Your task to perform on an android device: check data usage Image 0: 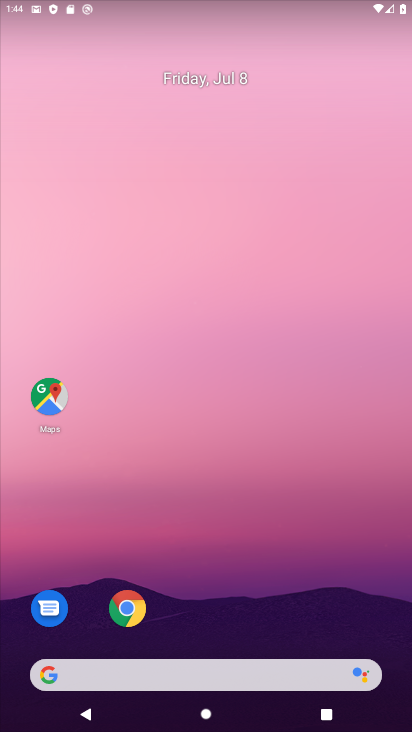
Step 0: drag from (300, 634) to (303, 346)
Your task to perform on an android device: check data usage Image 1: 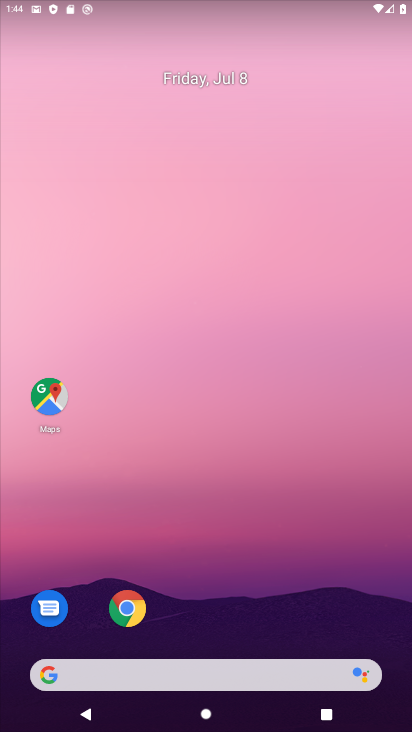
Step 1: drag from (248, 555) to (240, 6)
Your task to perform on an android device: check data usage Image 2: 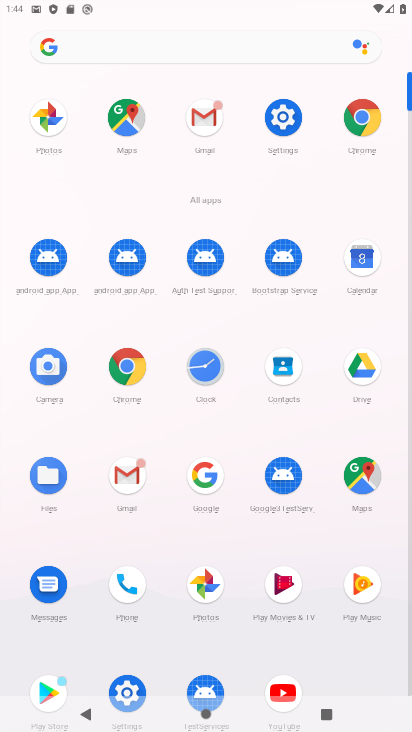
Step 2: click (282, 99)
Your task to perform on an android device: check data usage Image 3: 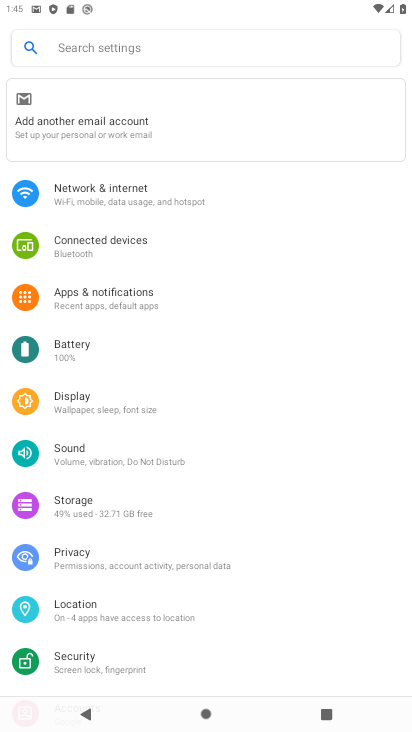
Step 3: click (141, 197)
Your task to perform on an android device: check data usage Image 4: 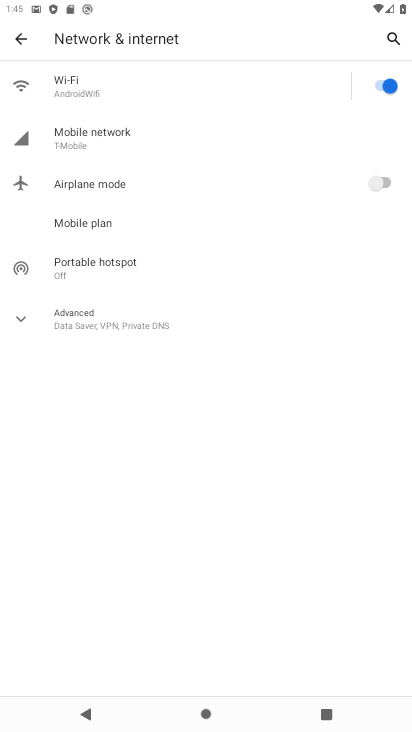
Step 4: click (137, 147)
Your task to perform on an android device: check data usage Image 5: 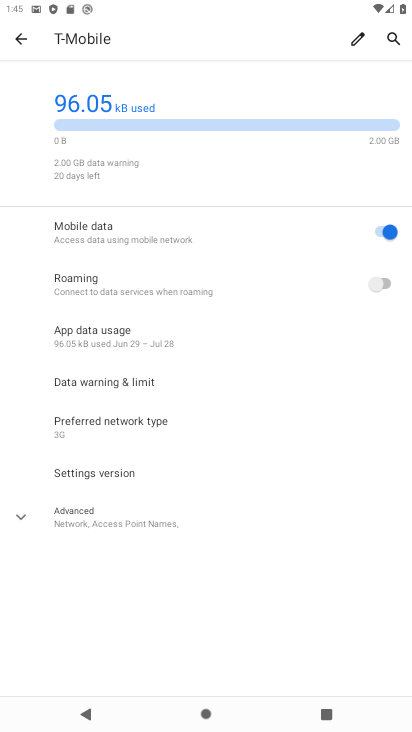
Step 5: click (145, 332)
Your task to perform on an android device: check data usage Image 6: 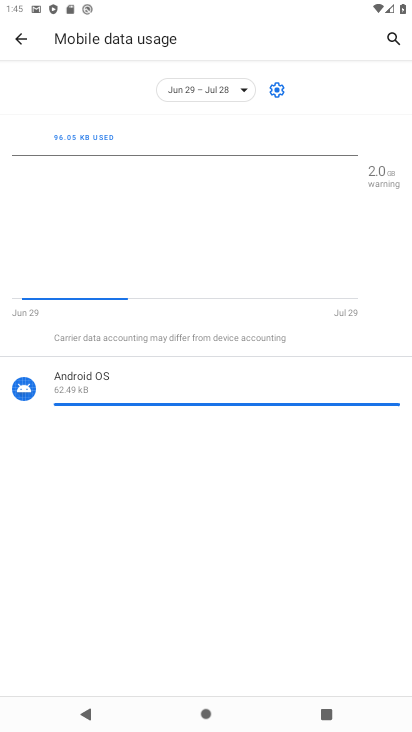
Step 6: task complete